Your task to perform on an android device: install app "Firefox Browser" Image 0: 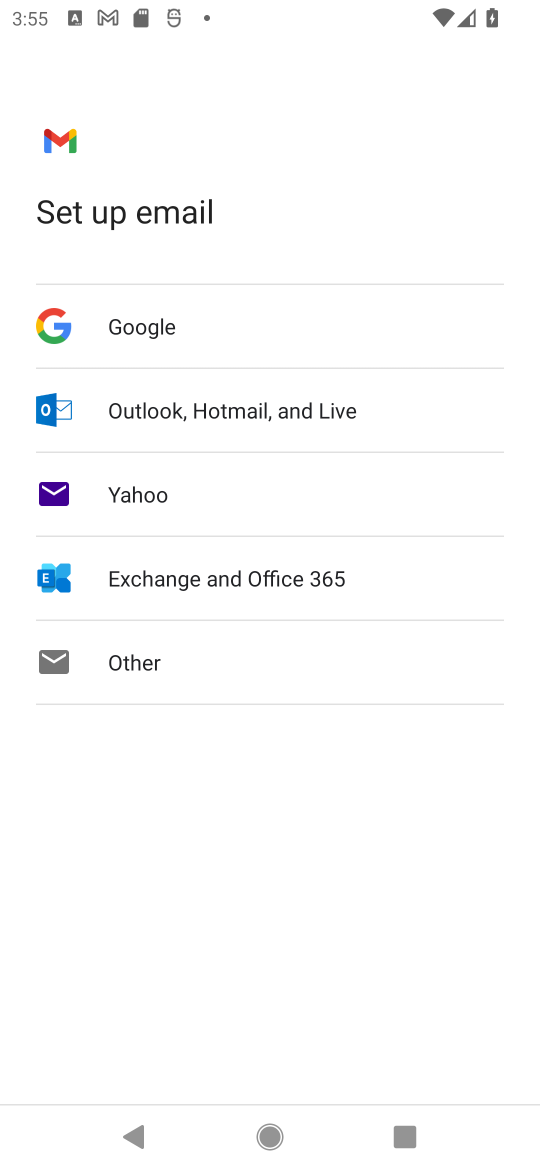
Step 0: press home button
Your task to perform on an android device: install app "Firefox Browser" Image 1: 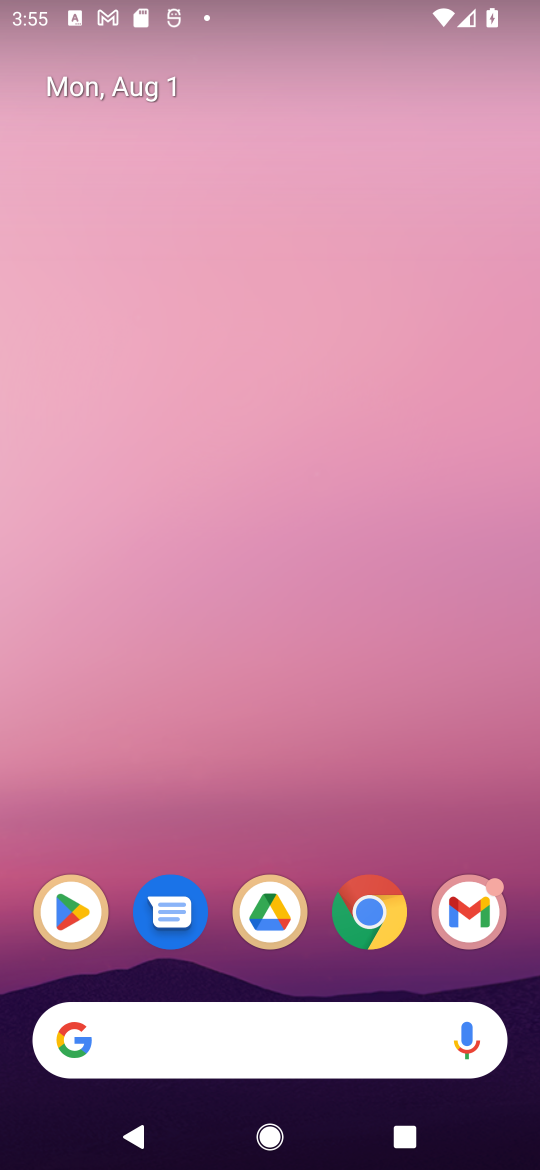
Step 1: click (73, 917)
Your task to perform on an android device: install app "Firefox Browser" Image 2: 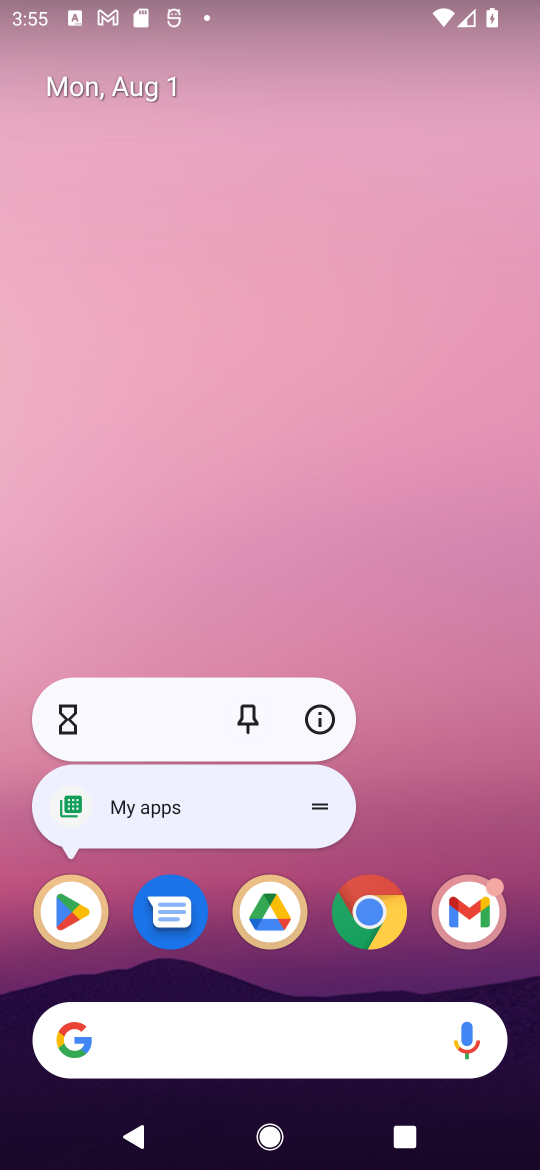
Step 2: click (73, 917)
Your task to perform on an android device: install app "Firefox Browser" Image 3: 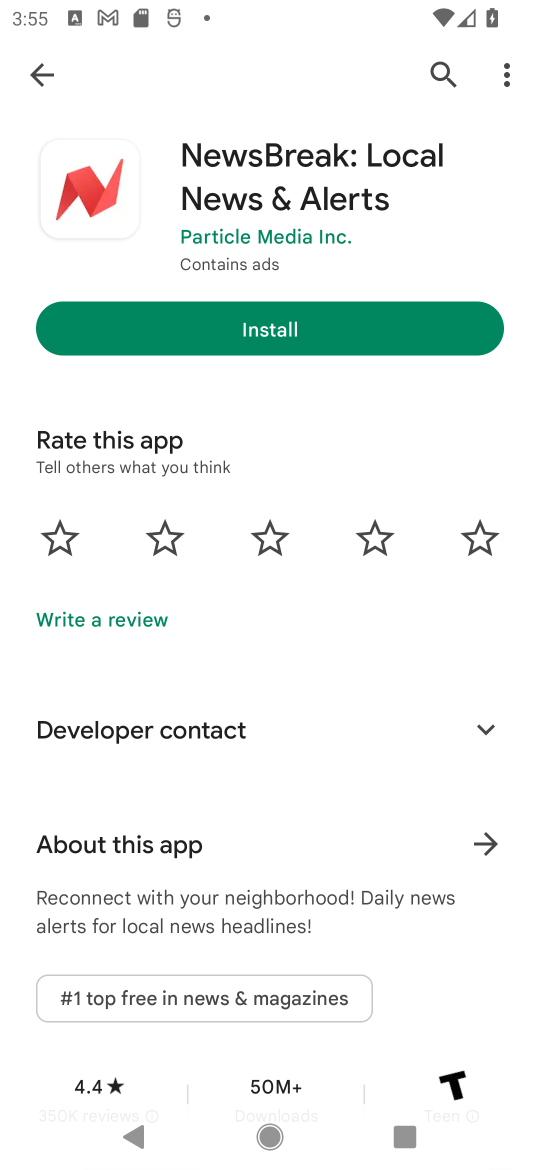
Step 3: click (445, 64)
Your task to perform on an android device: install app "Firefox Browser" Image 4: 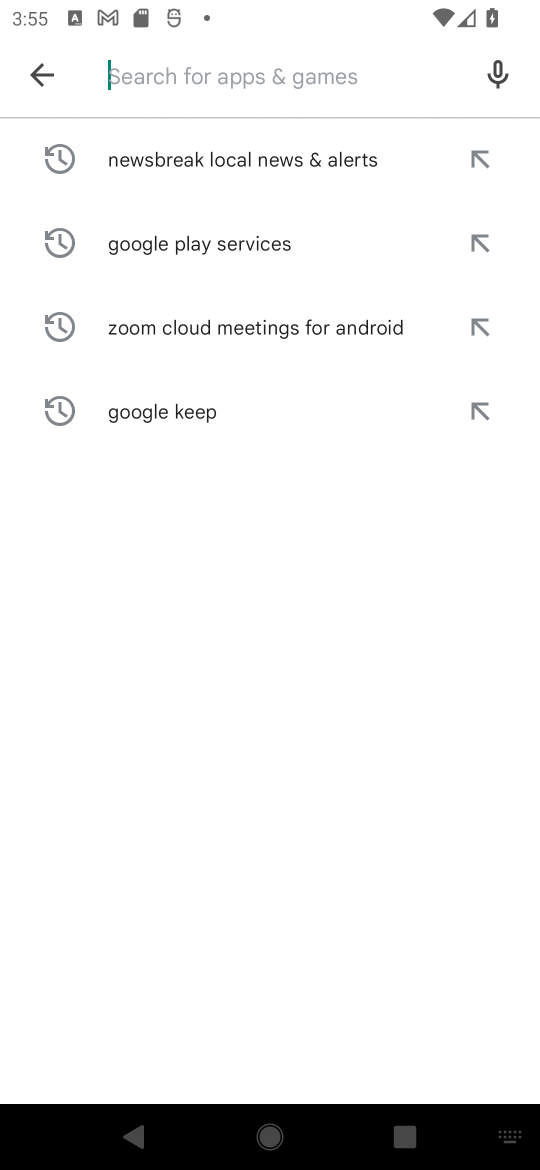
Step 4: type "Firefox Browser"
Your task to perform on an android device: install app "Firefox Browser" Image 5: 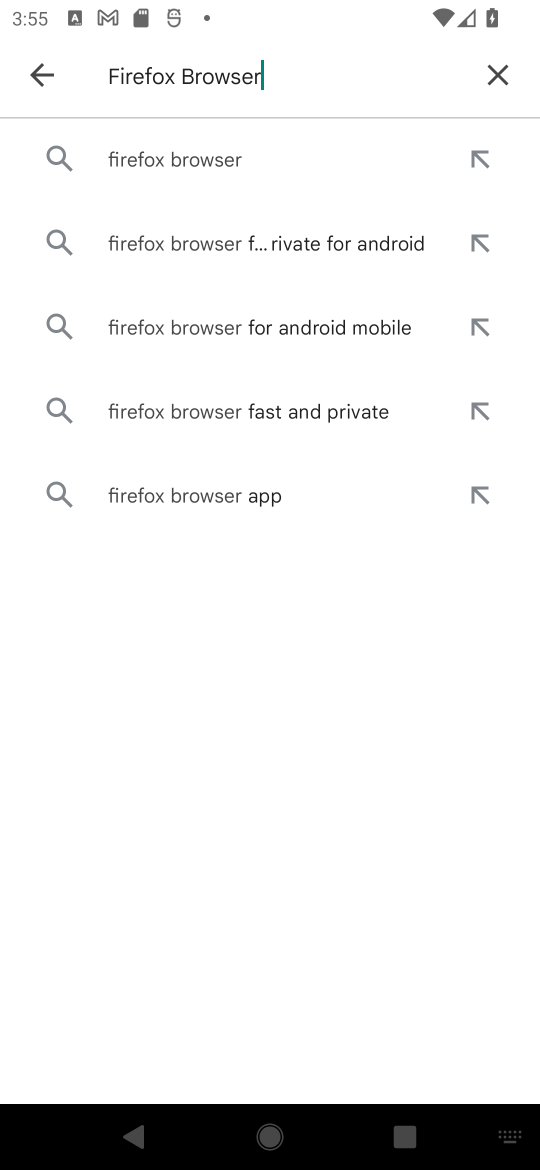
Step 5: click (188, 155)
Your task to perform on an android device: install app "Firefox Browser" Image 6: 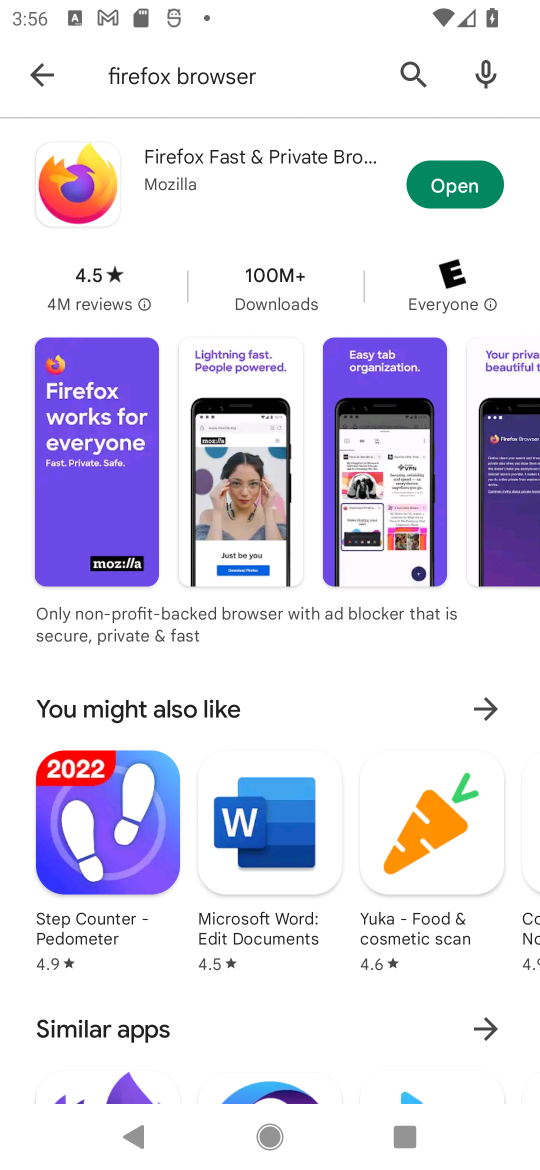
Step 6: task complete